Your task to perform on an android device: change notification settings in the gmail app Image 0: 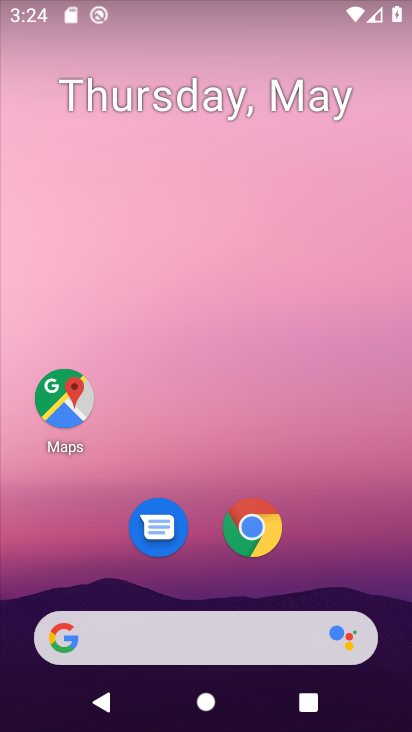
Step 0: drag from (383, 594) to (326, 50)
Your task to perform on an android device: change notification settings in the gmail app Image 1: 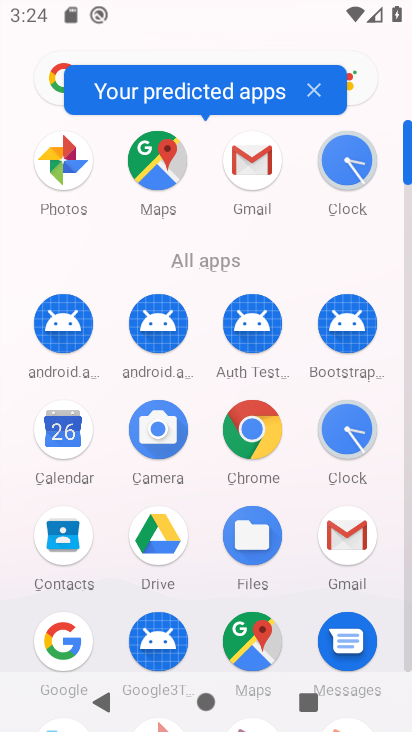
Step 1: click (346, 538)
Your task to perform on an android device: change notification settings in the gmail app Image 2: 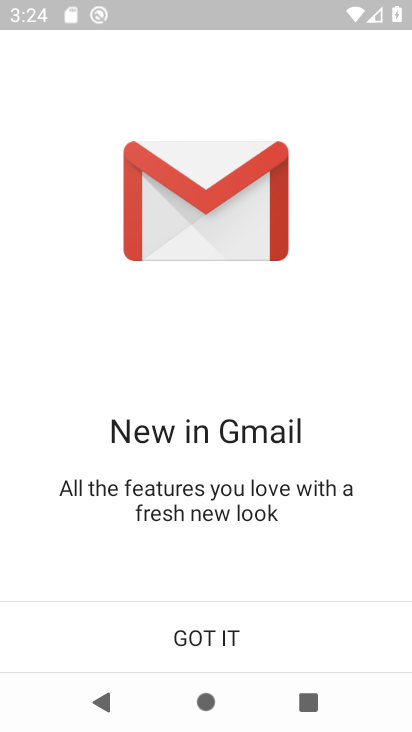
Step 2: click (210, 630)
Your task to perform on an android device: change notification settings in the gmail app Image 3: 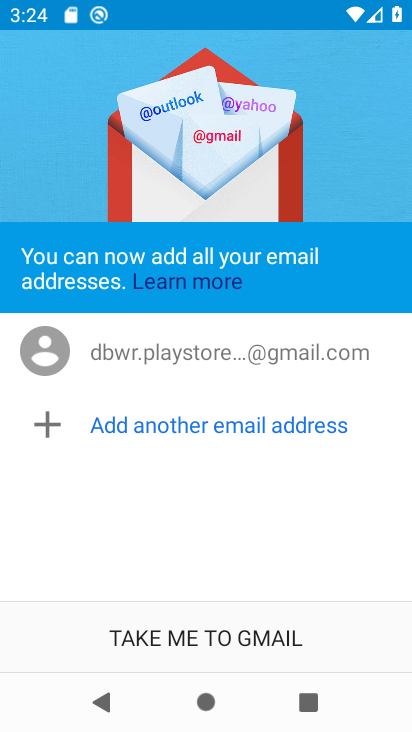
Step 3: click (210, 630)
Your task to perform on an android device: change notification settings in the gmail app Image 4: 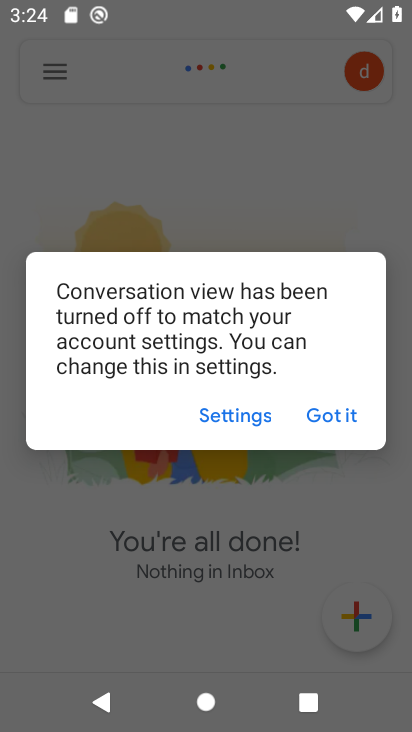
Step 4: click (330, 421)
Your task to perform on an android device: change notification settings in the gmail app Image 5: 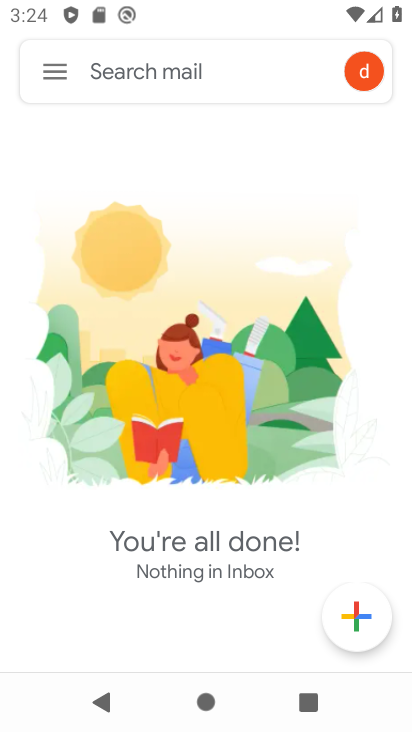
Step 5: click (54, 67)
Your task to perform on an android device: change notification settings in the gmail app Image 6: 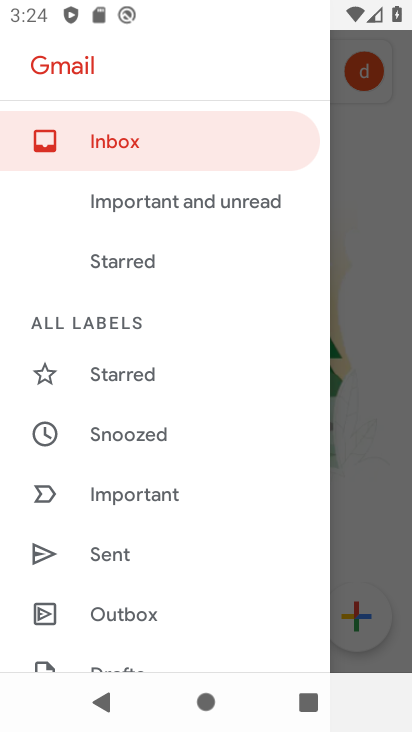
Step 6: drag from (202, 609) to (219, 343)
Your task to perform on an android device: change notification settings in the gmail app Image 7: 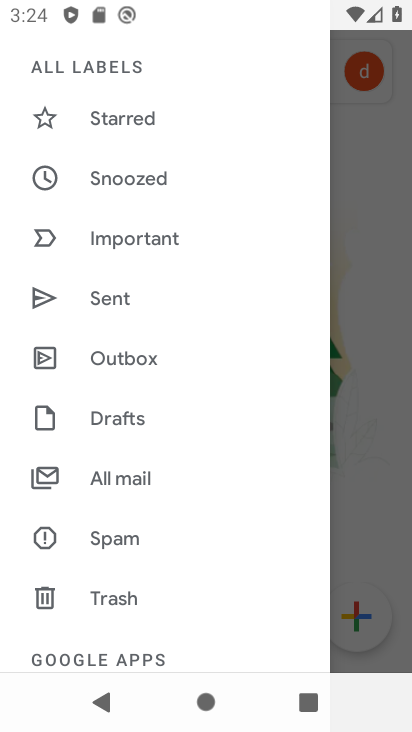
Step 7: drag from (168, 599) to (198, 233)
Your task to perform on an android device: change notification settings in the gmail app Image 8: 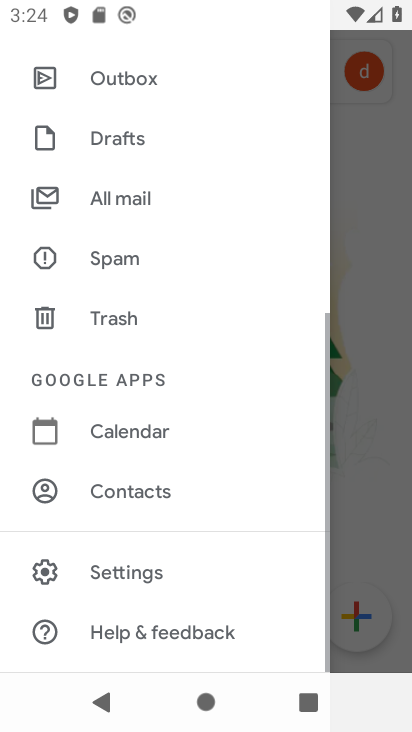
Step 8: click (132, 565)
Your task to perform on an android device: change notification settings in the gmail app Image 9: 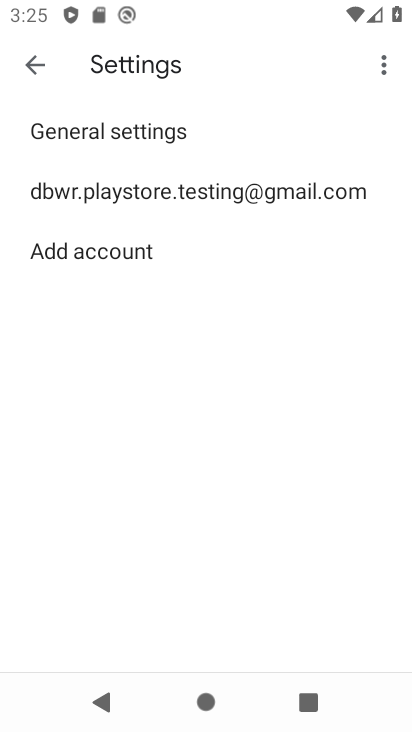
Step 9: click (169, 196)
Your task to perform on an android device: change notification settings in the gmail app Image 10: 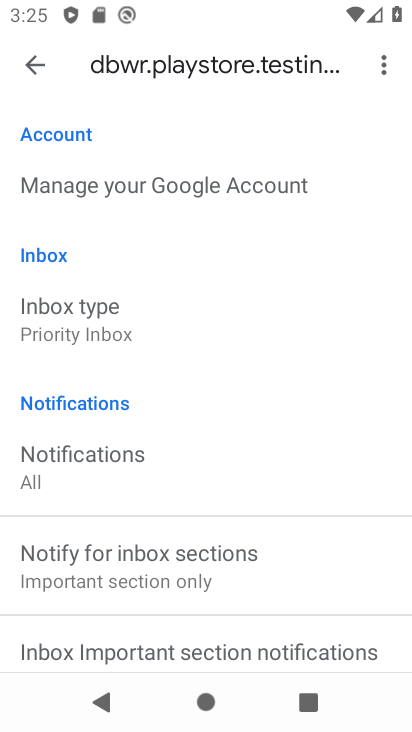
Step 10: drag from (155, 550) to (185, 186)
Your task to perform on an android device: change notification settings in the gmail app Image 11: 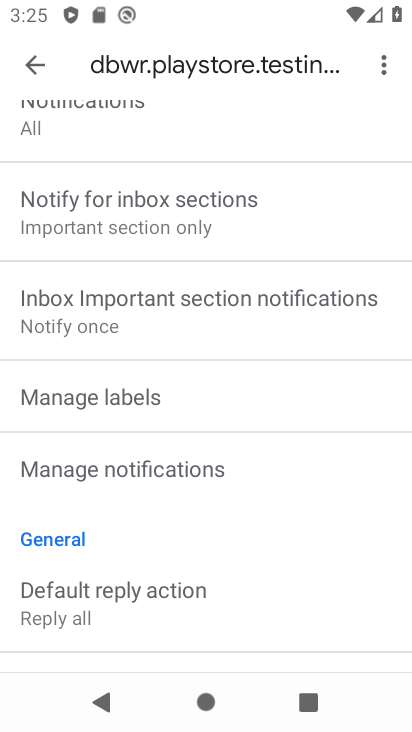
Step 11: click (134, 455)
Your task to perform on an android device: change notification settings in the gmail app Image 12: 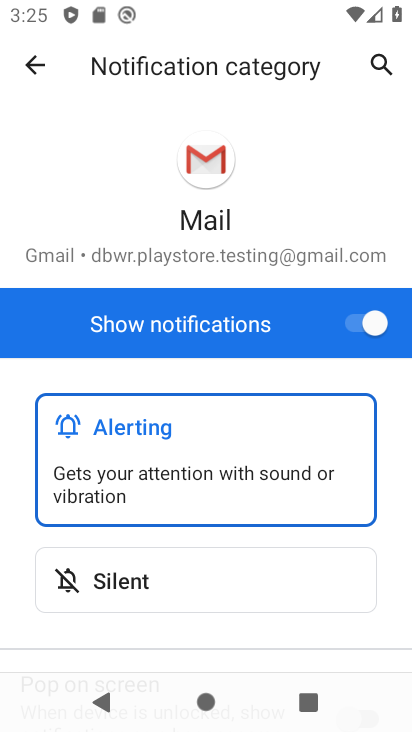
Step 12: click (342, 325)
Your task to perform on an android device: change notification settings in the gmail app Image 13: 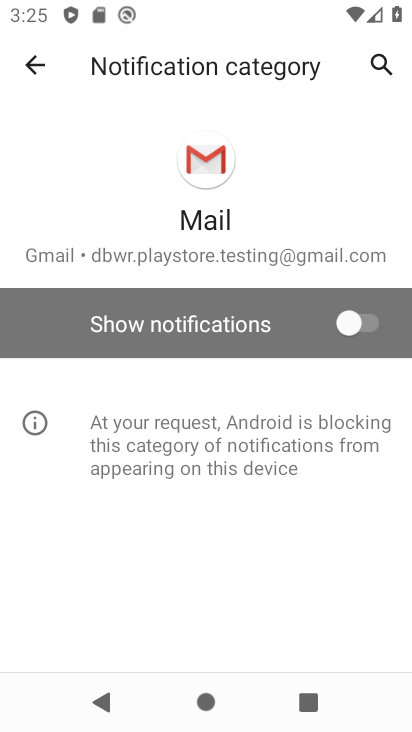
Step 13: task complete